Your task to perform on an android device: refresh tabs in the chrome app Image 0: 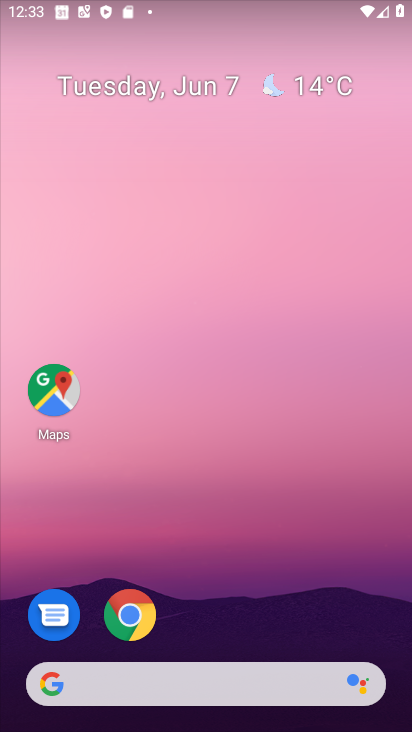
Step 0: click (131, 614)
Your task to perform on an android device: refresh tabs in the chrome app Image 1: 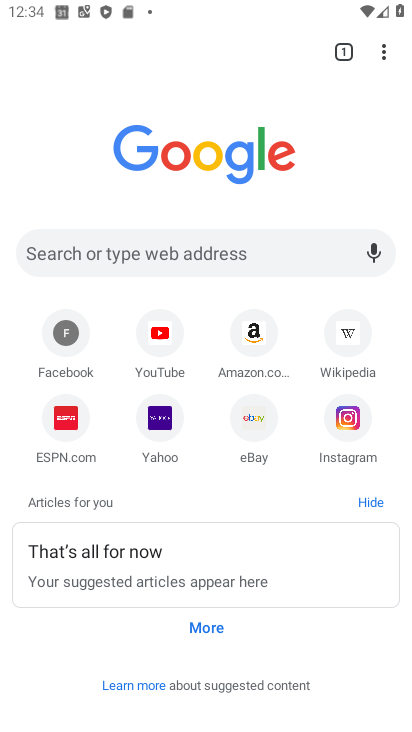
Step 1: click (382, 53)
Your task to perform on an android device: refresh tabs in the chrome app Image 2: 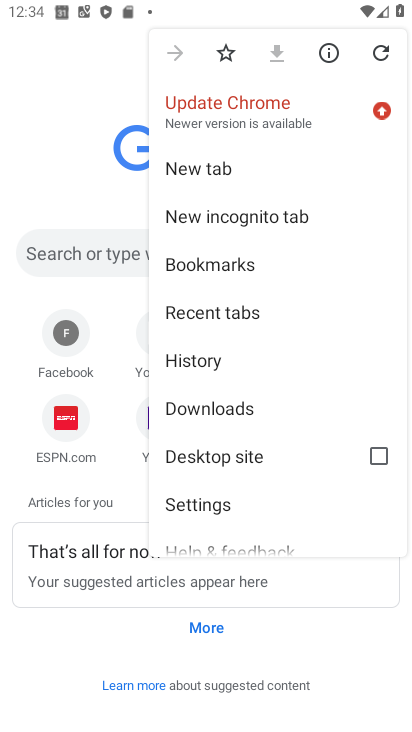
Step 2: click (382, 53)
Your task to perform on an android device: refresh tabs in the chrome app Image 3: 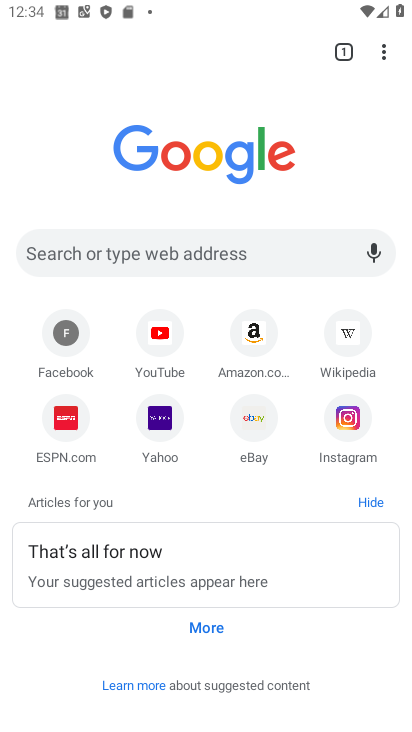
Step 3: task complete